Your task to perform on an android device: Do I have any events tomorrow? Image 0: 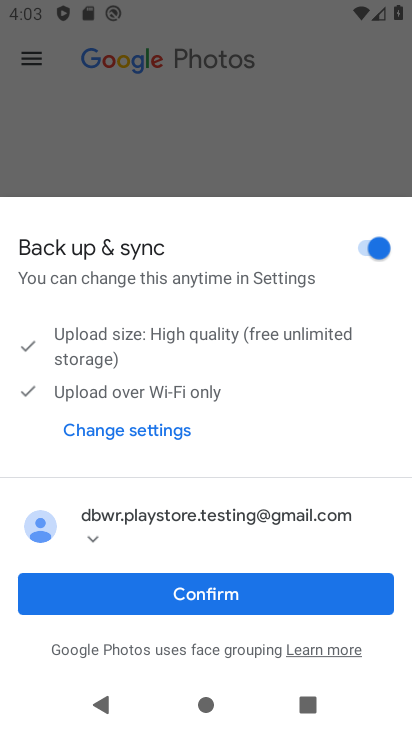
Step 0: press home button
Your task to perform on an android device: Do I have any events tomorrow? Image 1: 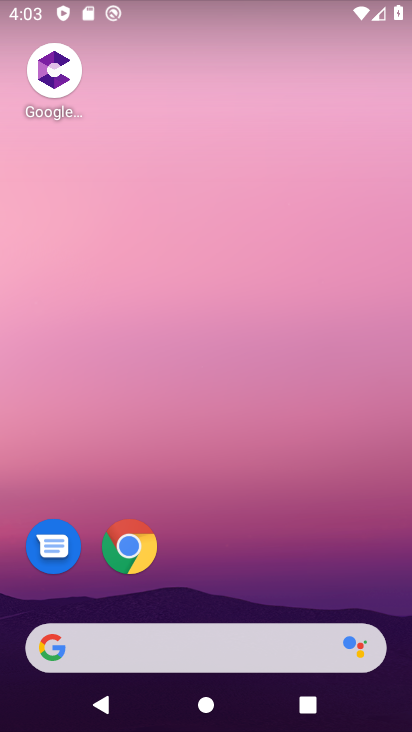
Step 1: drag from (237, 358) to (210, 4)
Your task to perform on an android device: Do I have any events tomorrow? Image 2: 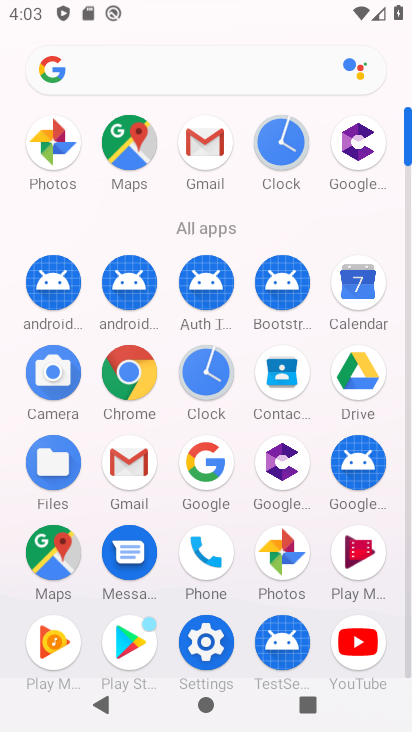
Step 2: drag from (240, 568) to (227, 69)
Your task to perform on an android device: Do I have any events tomorrow? Image 3: 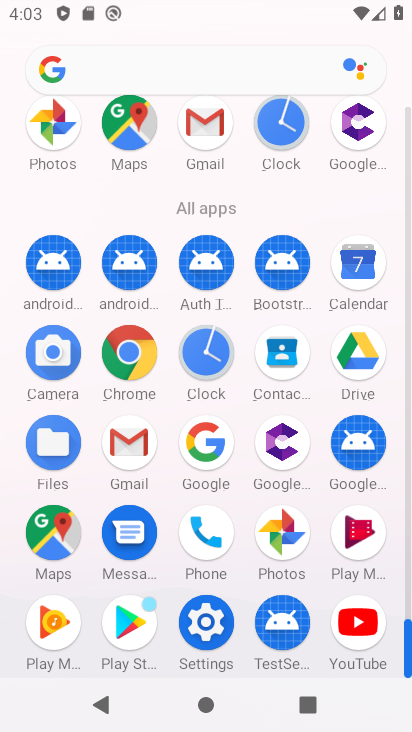
Step 3: drag from (271, 255) to (277, 107)
Your task to perform on an android device: Do I have any events tomorrow? Image 4: 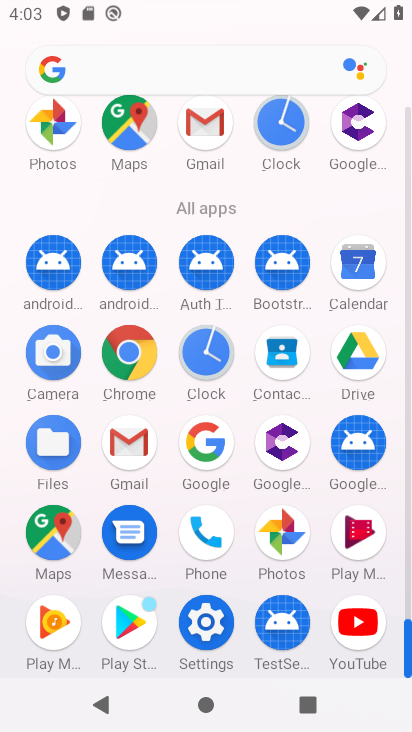
Step 4: drag from (225, 411) to (227, 178)
Your task to perform on an android device: Do I have any events tomorrow? Image 5: 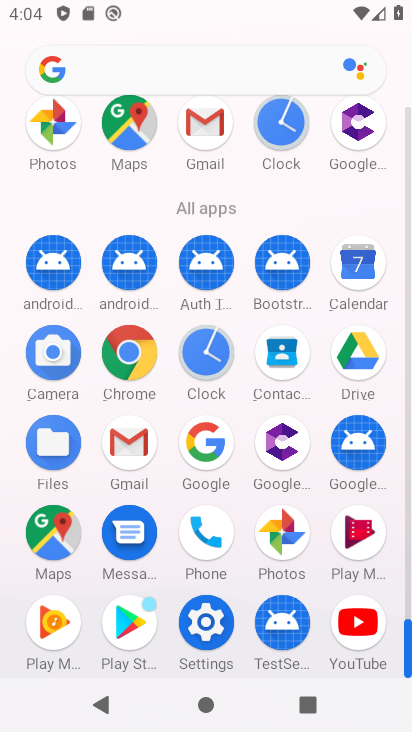
Step 5: drag from (152, 567) to (406, 12)
Your task to perform on an android device: Do I have any events tomorrow? Image 6: 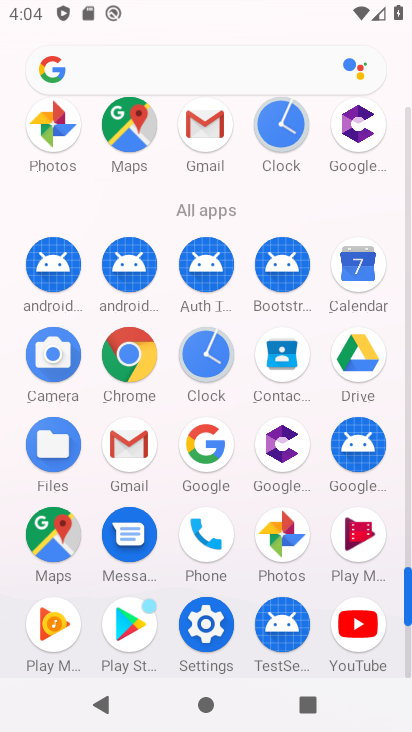
Step 6: click (388, 265)
Your task to perform on an android device: Do I have any events tomorrow? Image 7: 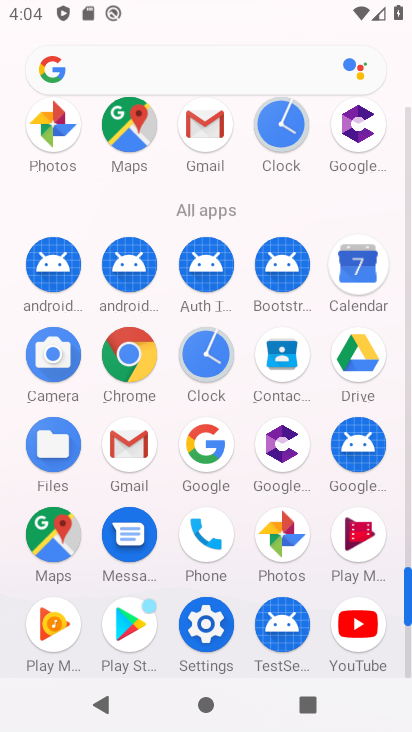
Step 7: click (355, 286)
Your task to perform on an android device: Do I have any events tomorrow? Image 8: 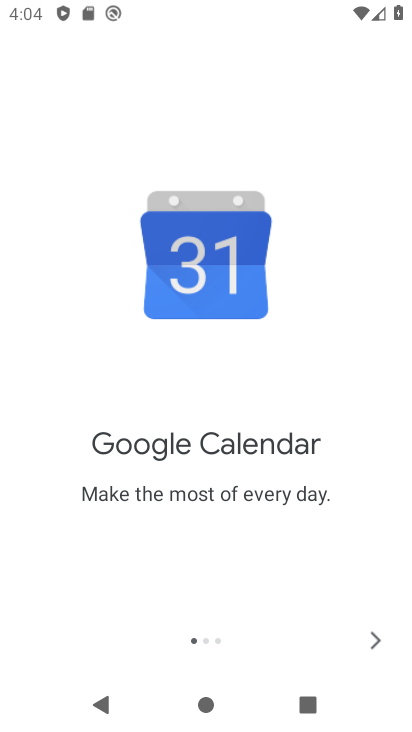
Step 8: click (376, 642)
Your task to perform on an android device: Do I have any events tomorrow? Image 9: 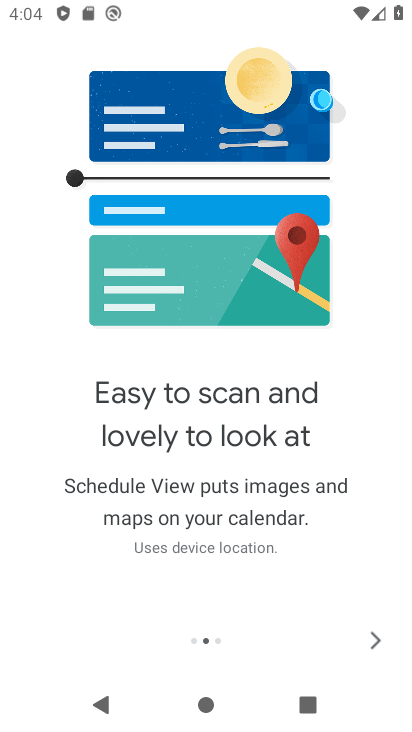
Step 9: click (369, 648)
Your task to perform on an android device: Do I have any events tomorrow? Image 10: 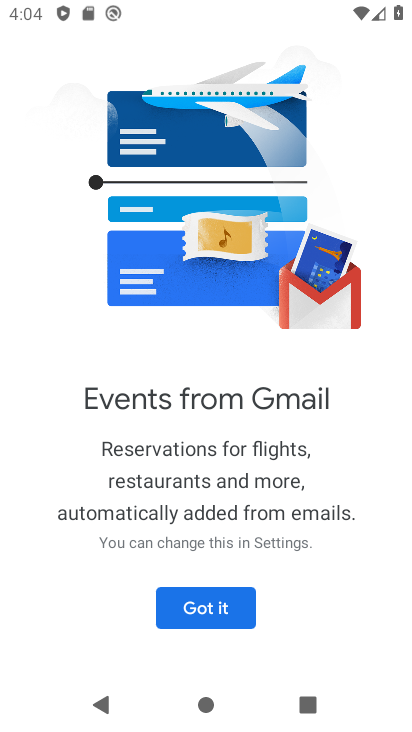
Step 10: click (191, 619)
Your task to perform on an android device: Do I have any events tomorrow? Image 11: 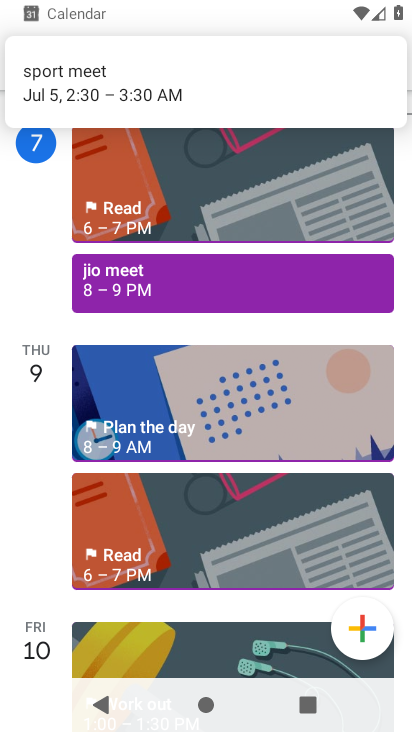
Step 11: task complete